Your task to perform on an android device: clear history in the chrome app Image 0: 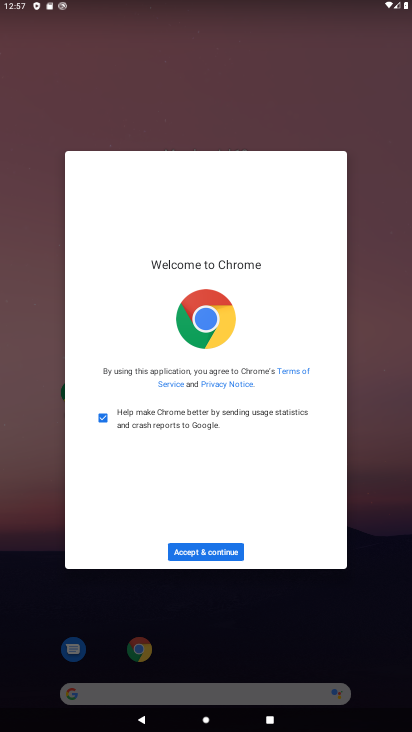
Step 0: press home button
Your task to perform on an android device: clear history in the chrome app Image 1: 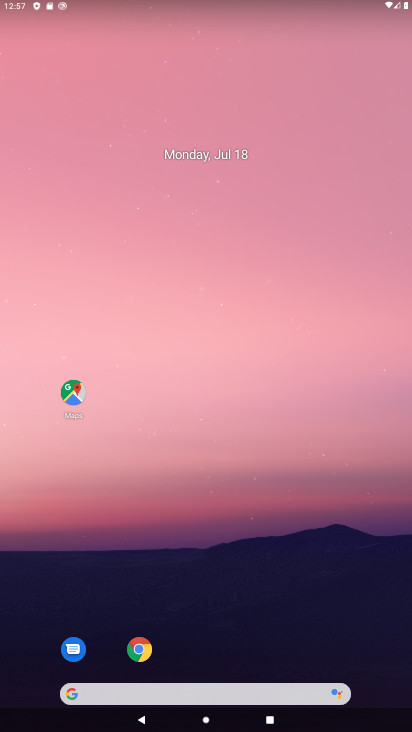
Step 1: click (151, 652)
Your task to perform on an android device: clear history in the chrome app Image 2: 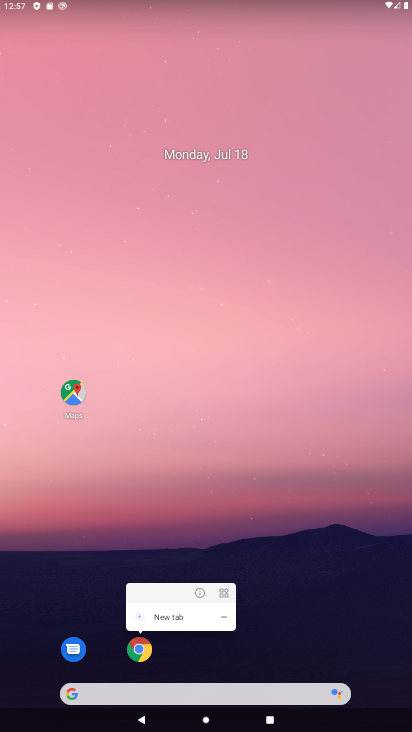
Step 2: click (134, 649)
Your task to perform on an android device: clear history in the chrome app Image 3: 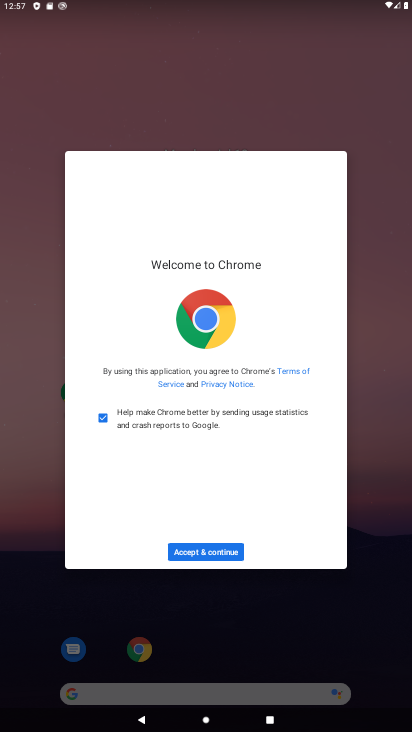
Step 3: click (189, 566)
Your task to perform on an android device: clear history in the chrome app Image 4: 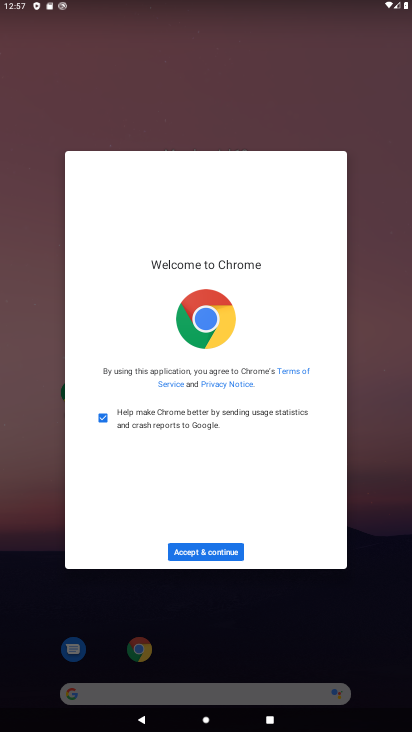
Step 4: click (208, 548)
Your task to perform on an android device: clear history in the chrome app Image 5: 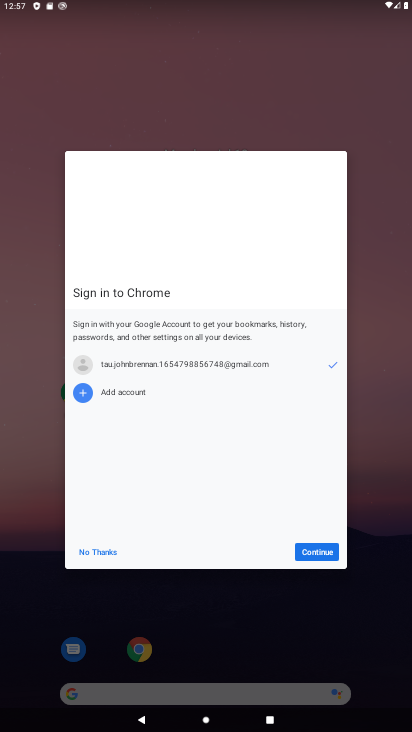
Step 5: click (311, 541)
Your task to perform on an android device: clear history in the chrome app Image 6: 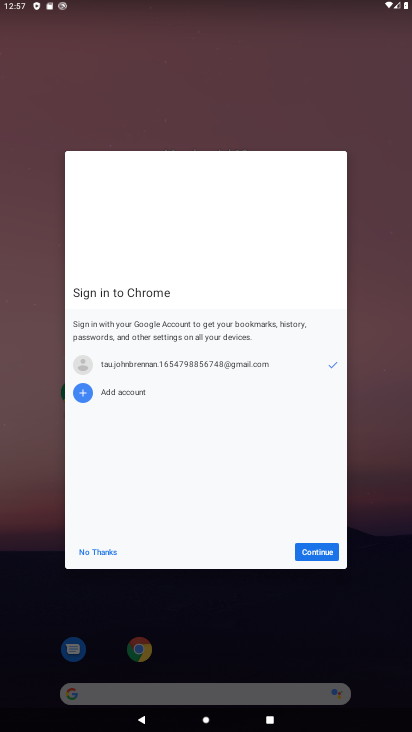
Step 6: click (305, 546)
Your task to perform on an android device: clear history in the chrome app Image 7: 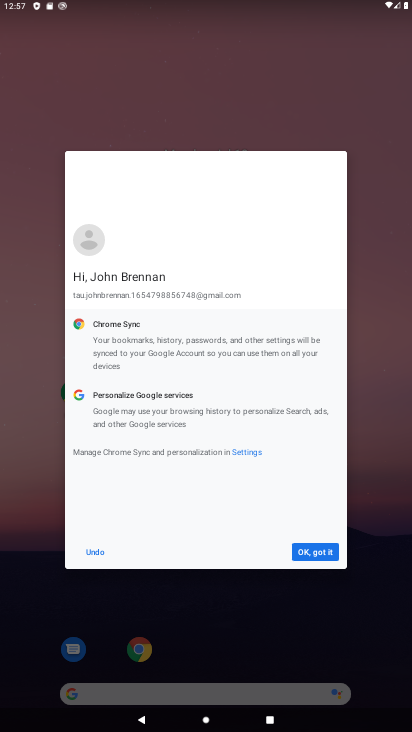
Step 7: click (310, 546)
Your task to perform on an android device: clear history in the chrome app Image 8: 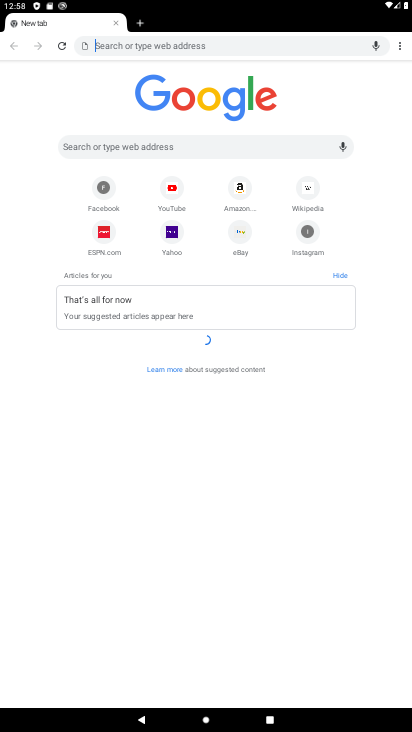
Step 8: click (397, 43)
Your task to perform on an android device: clear history in the chrome app Image 9: 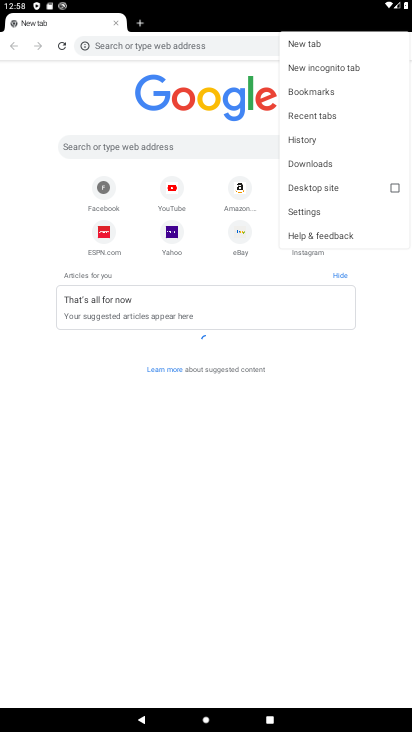
Step 9: click (290, 138)
Your task to perform on an android device: clear history in the chrome app Image 10: 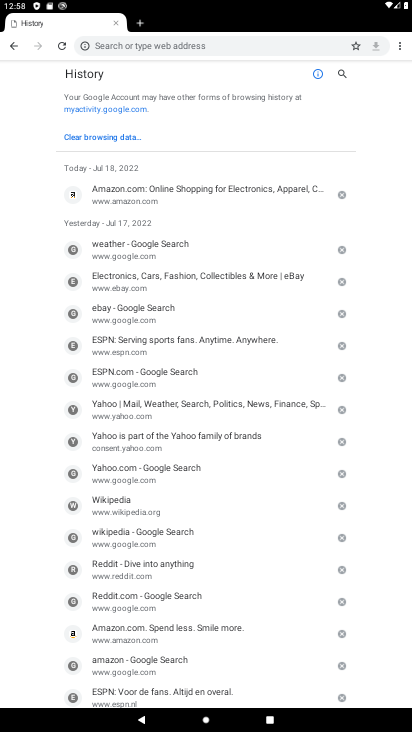
Step 10: click (95, 130)
Your task to perform on an android device: clear history in the chrome app Image 11: 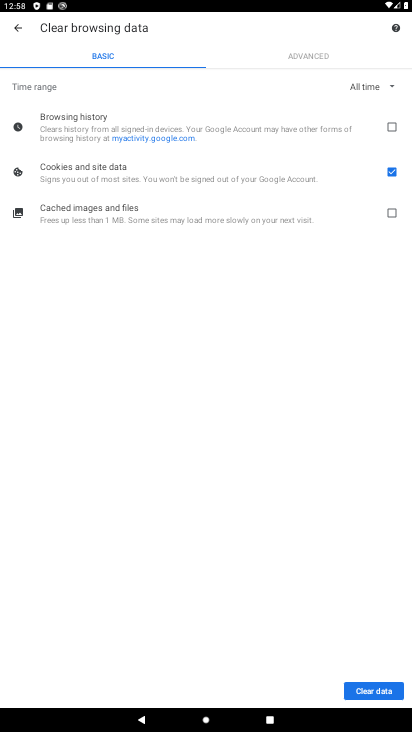
Step 11: click (383, 221)
Your task to perform on an android device: clear history in the chrome app Image 12: 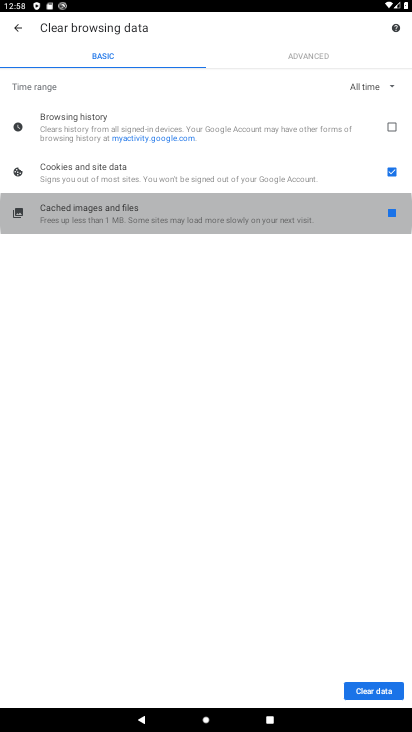
Step 12: click (393, 125)
Your task to perform on an android device: clear history in the chrome app Image 13: 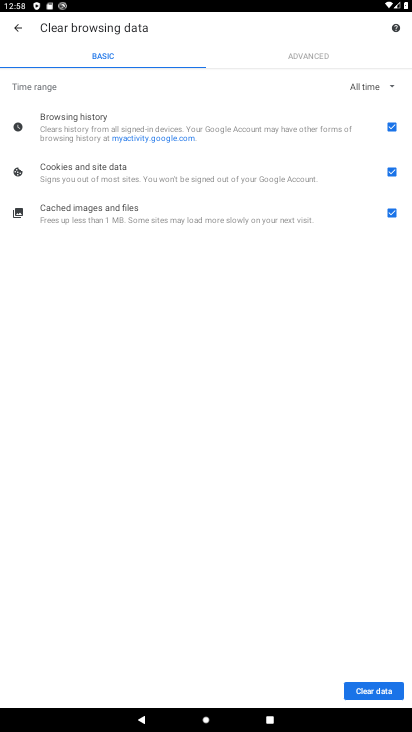
Step 13: click (362, 698)
Your task to perform on an android device: clear history in the chrome app Image 14: 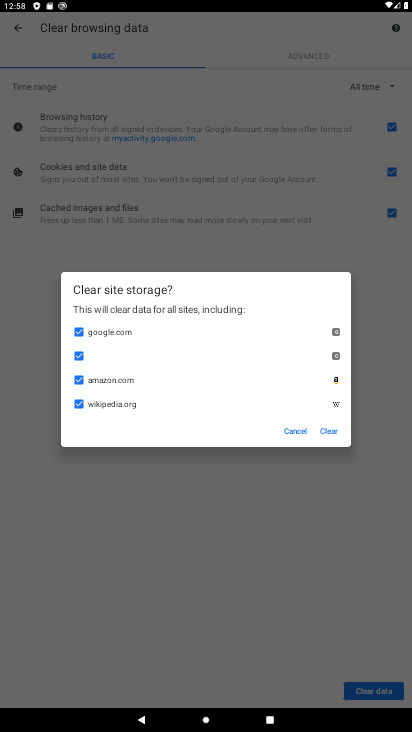
Step 14: click (328, 427)
Your task to perform on an android device: clear history in the chrome app Image 15: 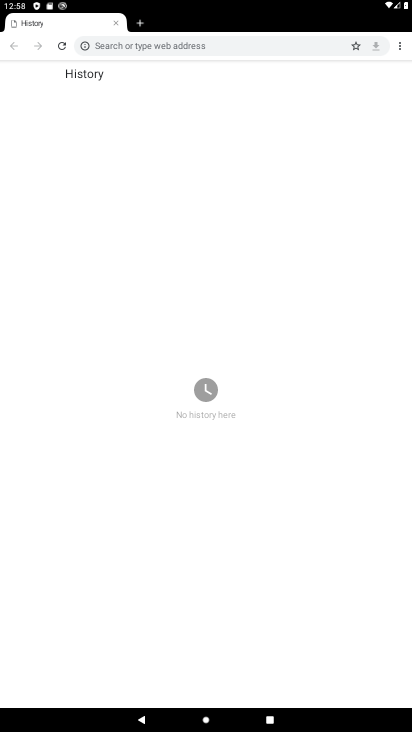
Step 15: task complete